Your task to perform on an android device: Open battery settings Image 0: 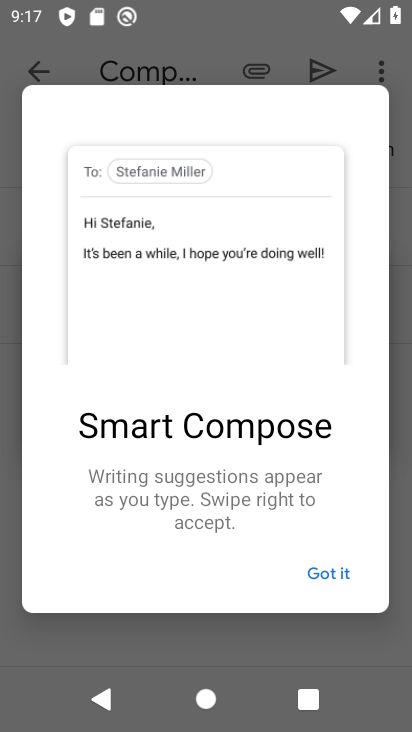
Step 0: press home button
Your task to perform on an android device: Open battery settings Image 1: 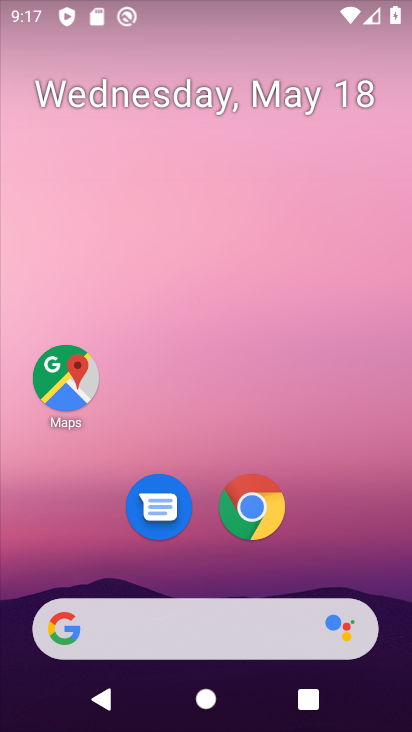
Step 1: drag from (336, 526) to (294, 59)
Your task to perform on an android device: Open battery settings Image 2: 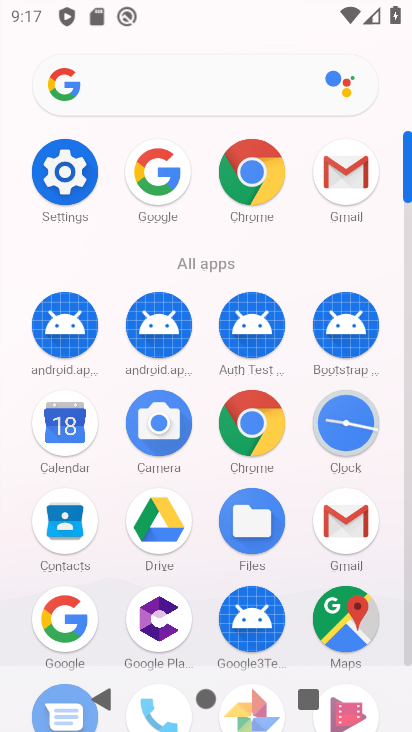
Step 2: click (49, 174)
Your task to perform on an android device: Open battery settings Image 3: 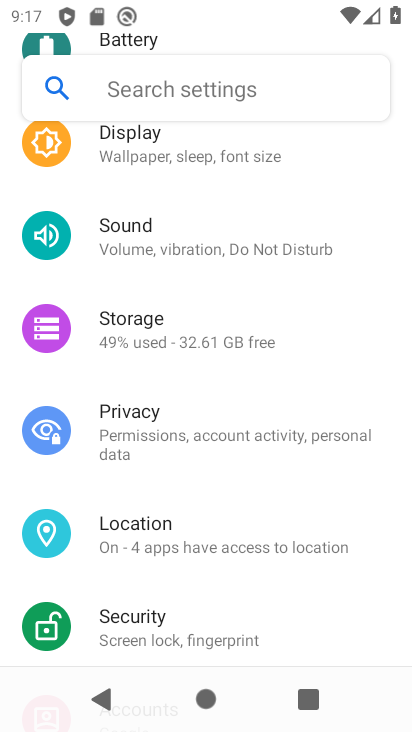
Step 3: drag from (323, 537) to (300, 106)
Your task to perform on an android device: Open battery settings Image 4: 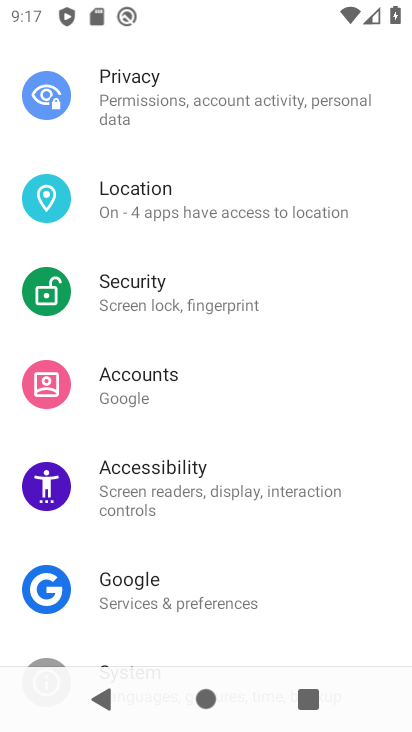
Step 4: drag from (201, 245) to (246, 603)
Your task to perform on an android device: Open battery settings Image 5: 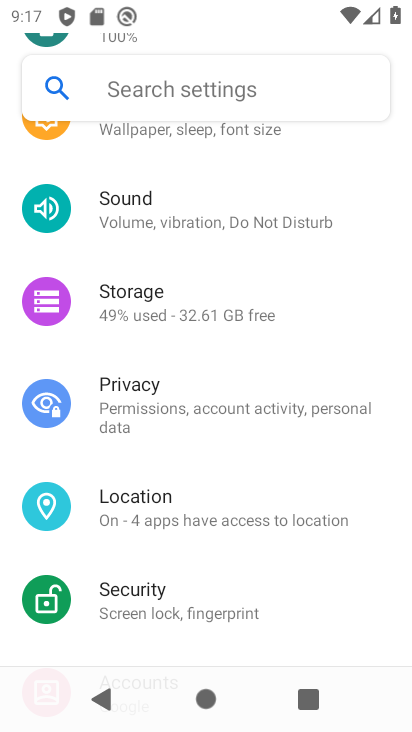
Step 5: drag from (237, 231) to (225, 642)
Your task to perform on an android device: Open battery settings Image 6: 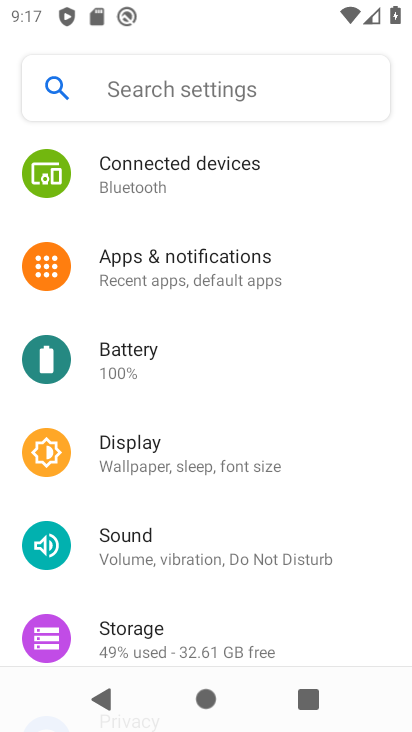
Step 6: click (146, 356)
Your task to perform on an android device: Open battery settings Image 7: 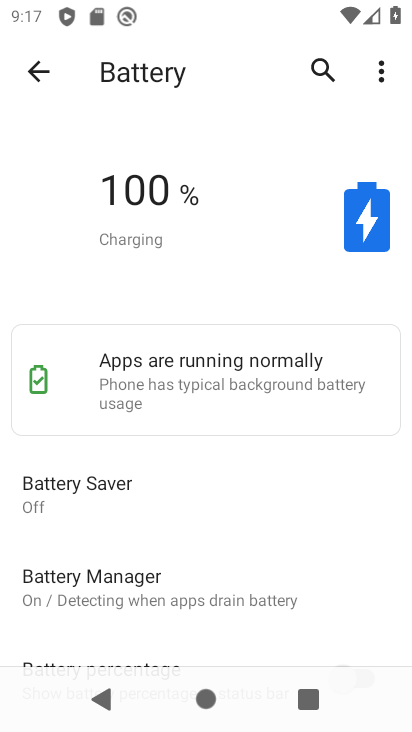
Step 7: task complete